Your task to perform on an android device: Go to ESPN.com Image 0: 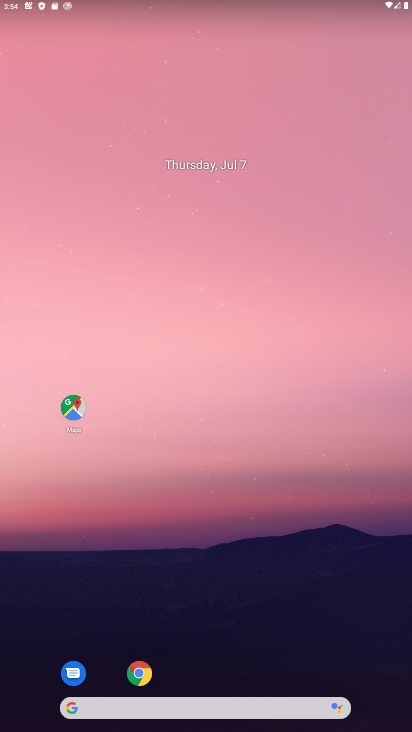
Step 0: click (144, 680)
Your task to perform on an android device: Go to ESPN.com Image 1: 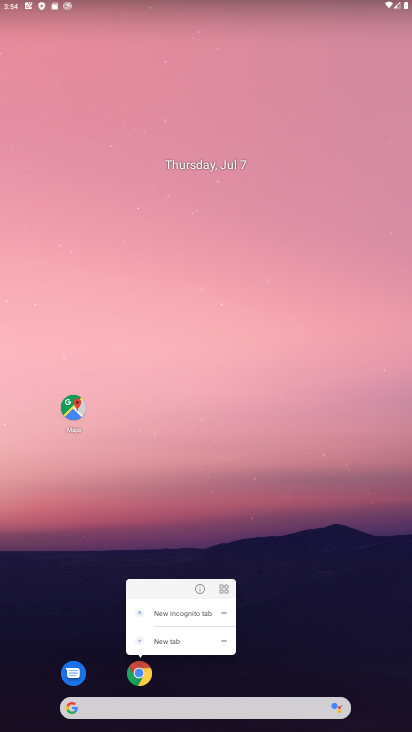
Step 1: click (139, 674)
Your task to perform on an android device: Go to ESPN.com Image 2: 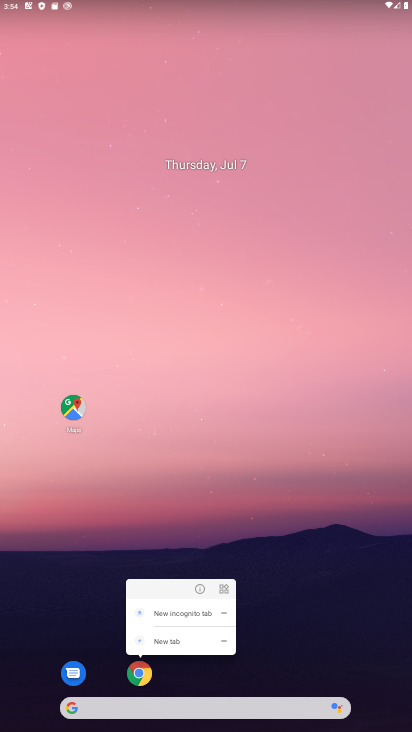
Step 2: click (139, 674)
Your task to perform on an android device: Go to ESPN.com Image 3: 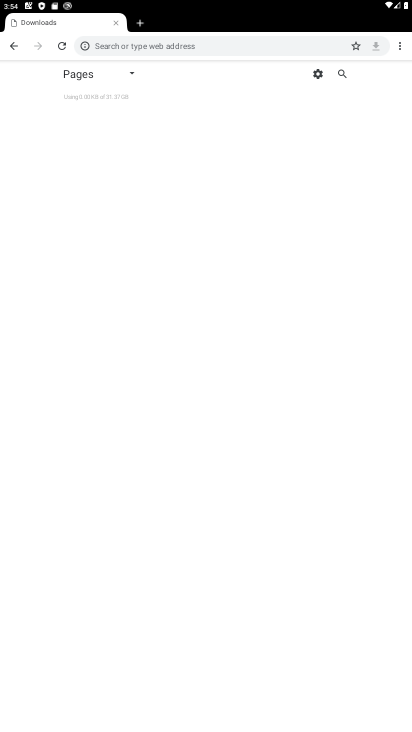
Step 3: click (146, 26)
Your task to perform on an android device: Go to ESPN.com Image 4: 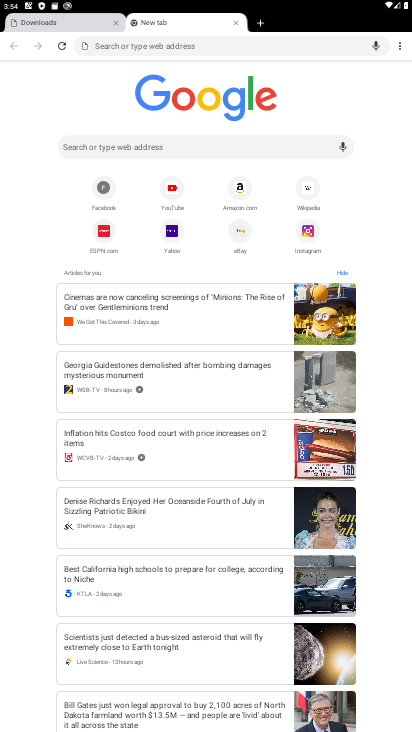
Step 4: click (107, 241)
Your task to perform on an android device: Go to ESPN.com Image 5: 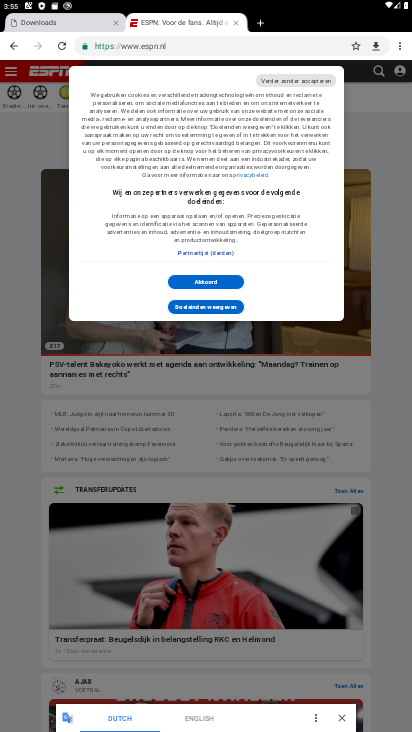
Step 5: task complete